Your task to perform on an android device: turn off picture-in-picture Image 0: 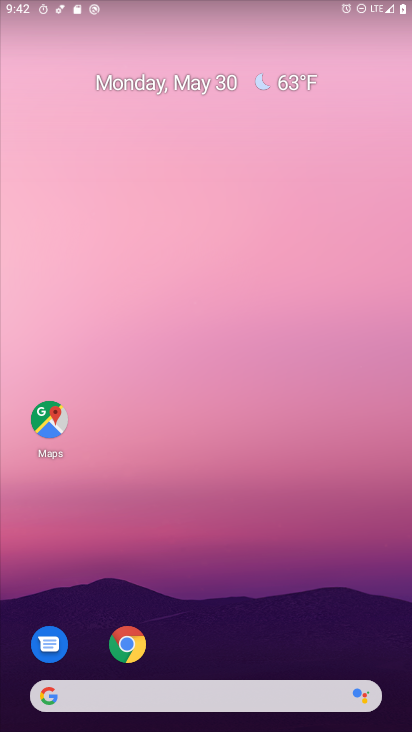
Step 0: click (129, 646)
Your task to perform on an android device: turn off picture-in-picture Image 1: 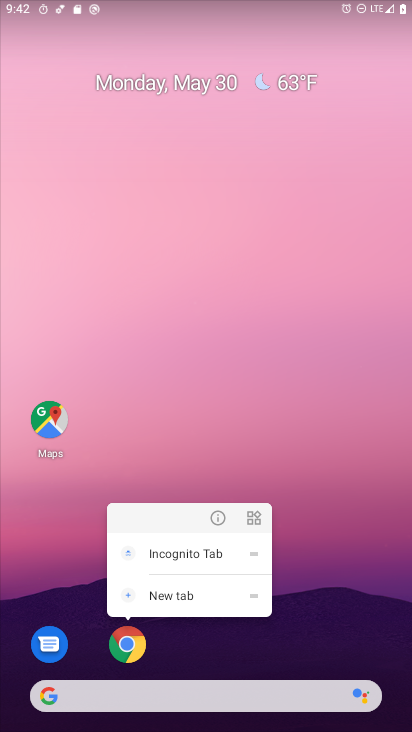
Step 1: click (216, 524)
Your task to perform on an android device: turn off picture-in-picture Image 2: 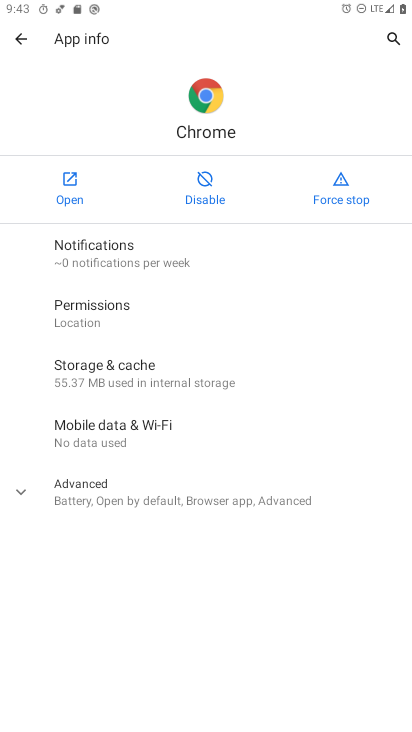
Step 2: click (88, 496)
Your task to perform on an android device: turn off picture-in-picture Image 3: 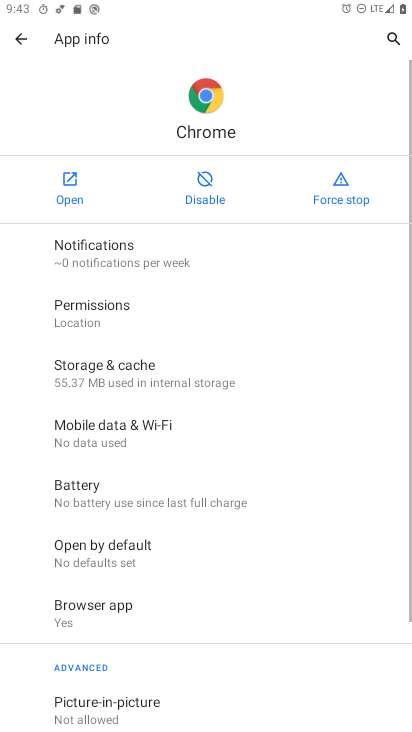
Step 3: drag from (181, 654) to (139, 346)
Your task to perform on an android device: turn off picture-in-picture Image 4: 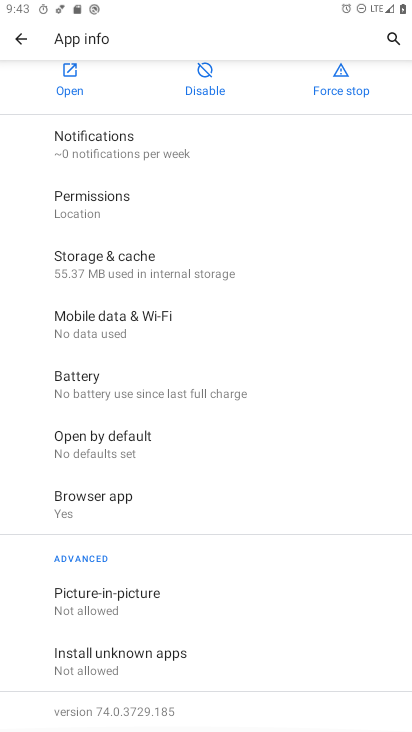
Step 4: click (63, 614)
Your task to perform on an android device: turn off picture-in-picture Image 5: 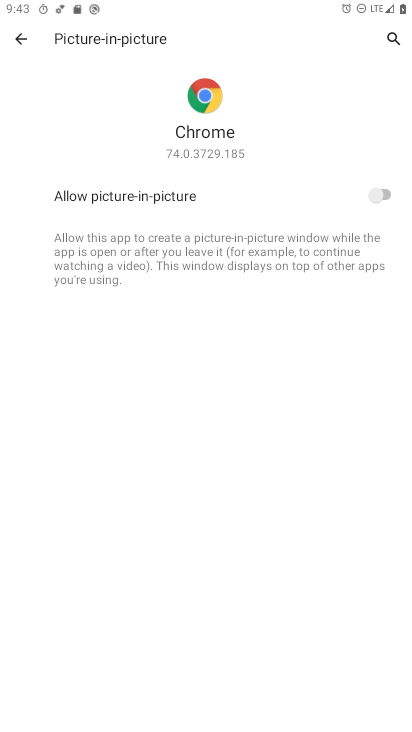
Step 5: task complete